Your task to perform on an android device: turn off notifications settings in the gmail app Image 0: 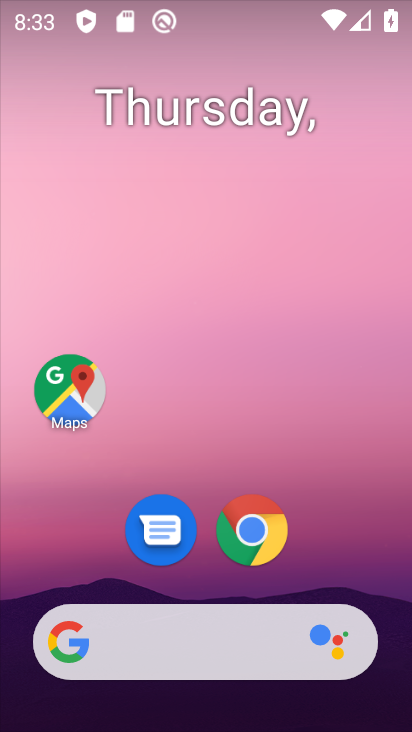
Step 0: drag from (260, 530) to (261, 105)
Your task to perform on an android device: turn off notifications settings in the gmail app Image 1: 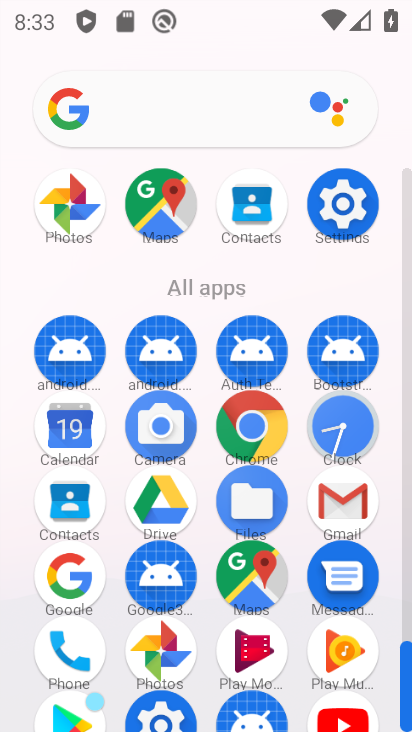
Step 1: click (360, 516)
Your task to perform on an android device: turn off notifications settings in the gmail app Image 2: 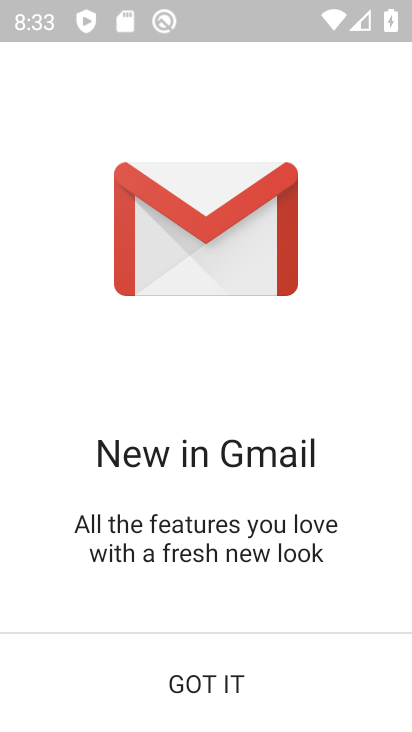
Step 2: click (209, 687)
Your task to perform on an android device: turn off notifications settings in the gmail app Image 3: 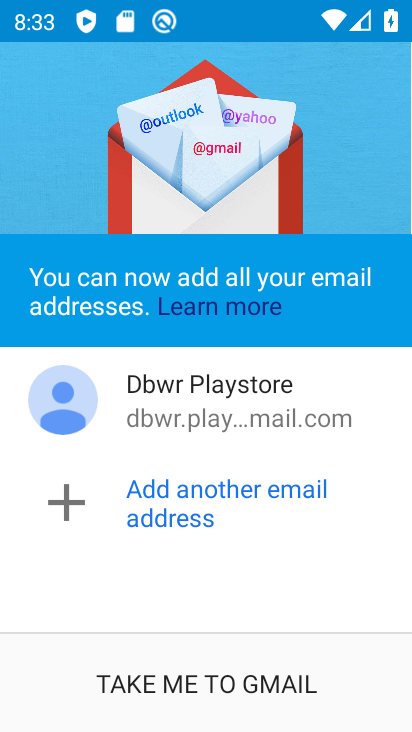
Step 3: click (186, 698)
Your task to perform on an android device: turn off notifications settings in the gmail app Image 4: 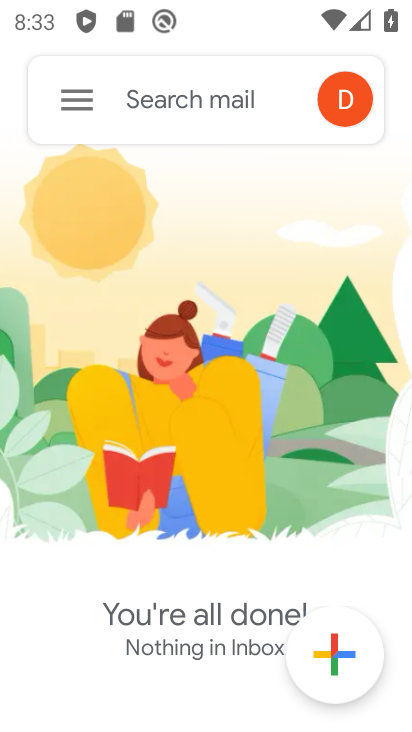
Step 4: click (82, 127)
Your task to perform on an android device: turn off notifications settings in the gmail app Image 5: 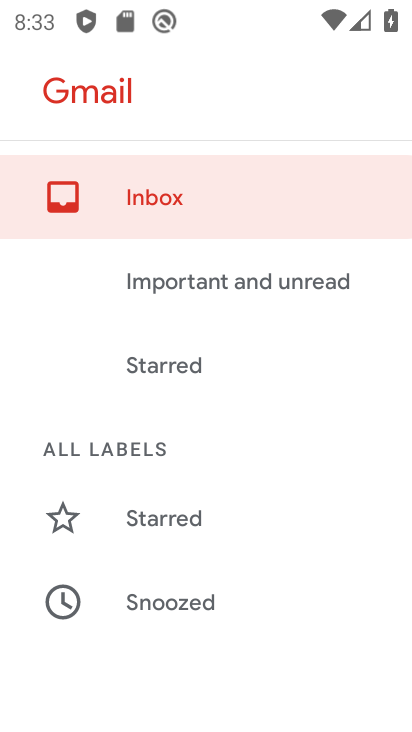
Step 5: drag from (191, 540) to (223, 396)
Your task to perform on an android device: turn off notifications settings in the gmail app Image 6: 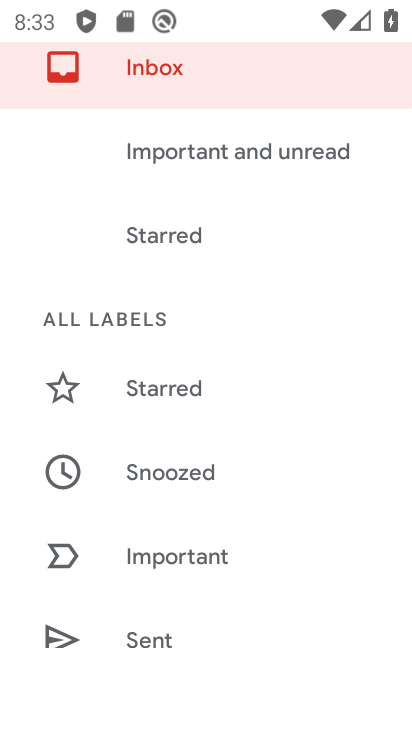
Step 6: drag from (191, 542) to (246, 162)
Your task to perform on an android device: turn off notifications settings in the gmail app Image 7: 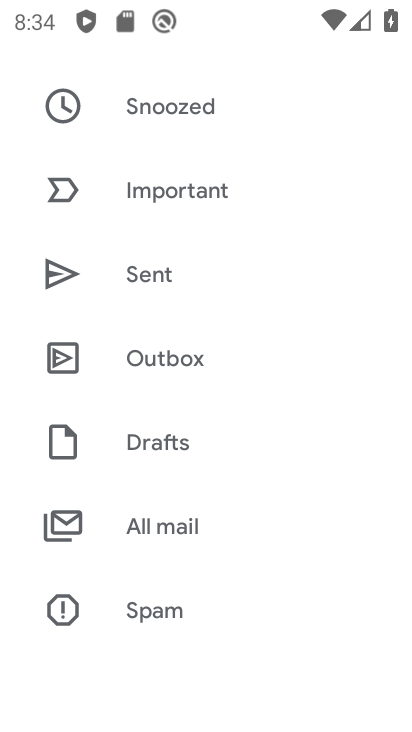
Step 7: drag from (201, 413) to (220, 165)
Your task to perform on an android device: turn off notifications settings in the gmail app Image 8: 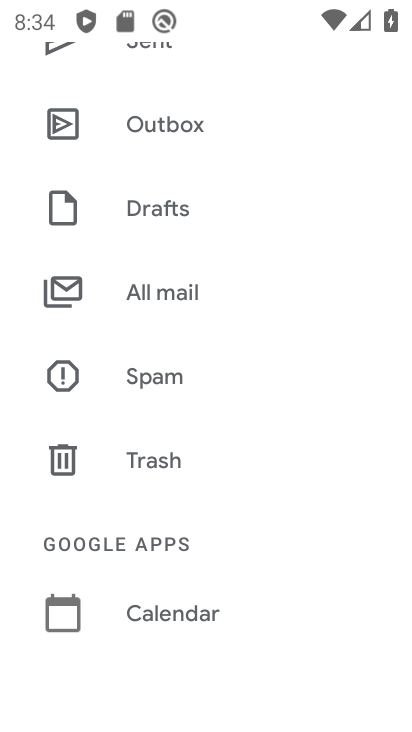
Step 8: drag from (211, 485) to (224, 54)
Your task to perform on an android device: turn off notifications settings in the gmail app Image 9: 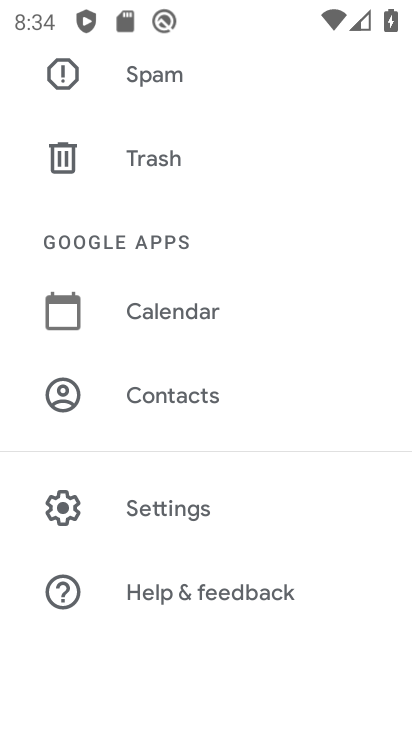
Step 9: click (176, 506)
Your task to perform on an android device: turn off notifications settings in the gmail app Image 10: 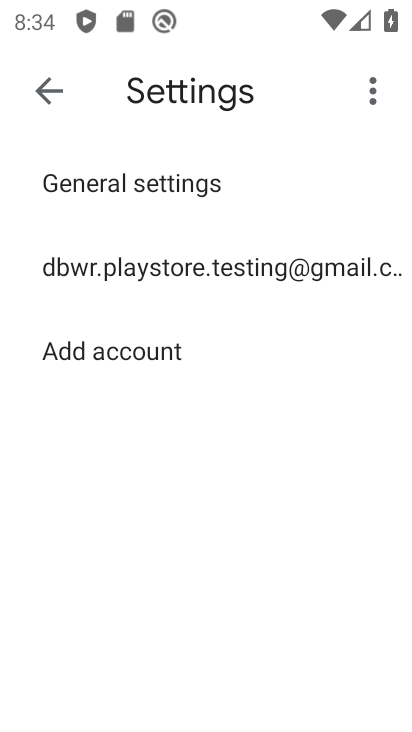
Step 10: click (149, 162)
Your task to perform on an android device: turn off notifications settings in the gmail app Image 11: 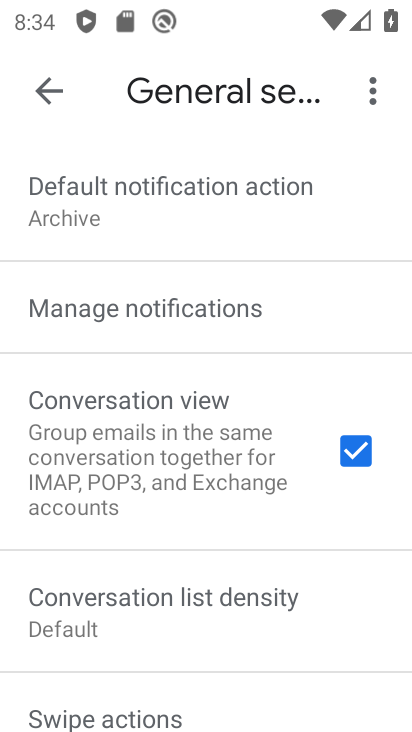
Step 11: click (241, 322)
Your task to perform on an android device: turn off notifications settings in the gmail app Image 12: 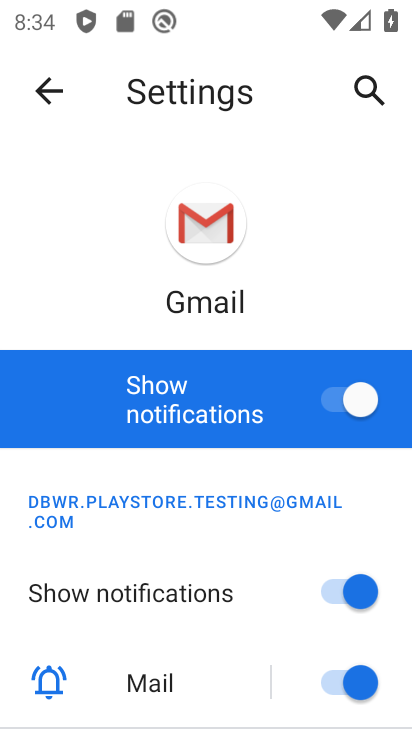
Step 12: click (330, 411)
Your task to perform on an android device: turn off notifications settings in the gmail app Image 13: 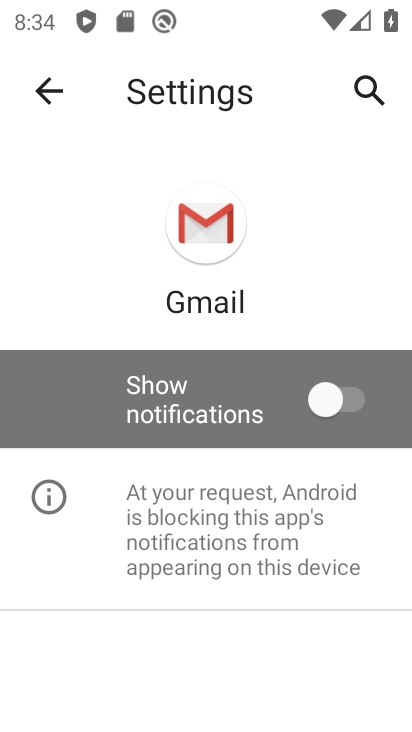
Step 13: task complete